Your task to perform on an android device: Open network settings Image 0: 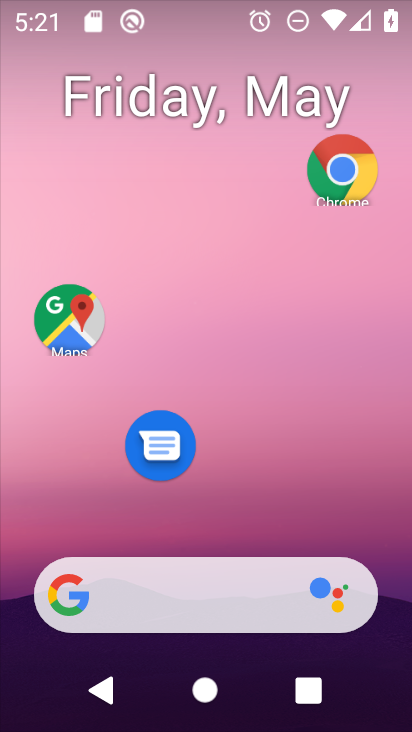
Step 0: drag from (233, 536) to (233, 47)
Your task to perform on an android device: Open network settings Image 1: 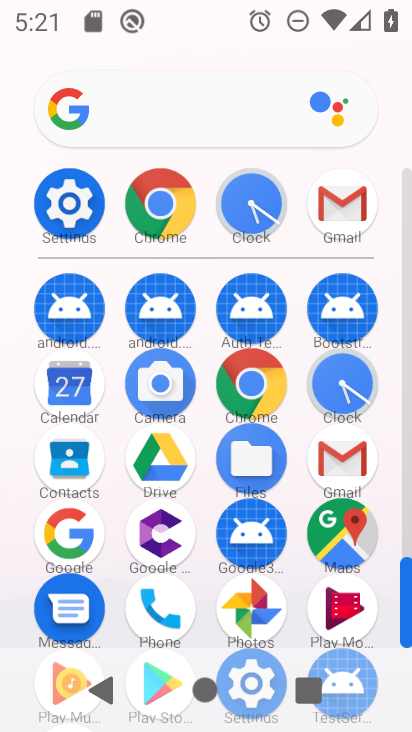
Step 1: click (74, 210)
Your task to perform on an android device: Open network settings Image 2: 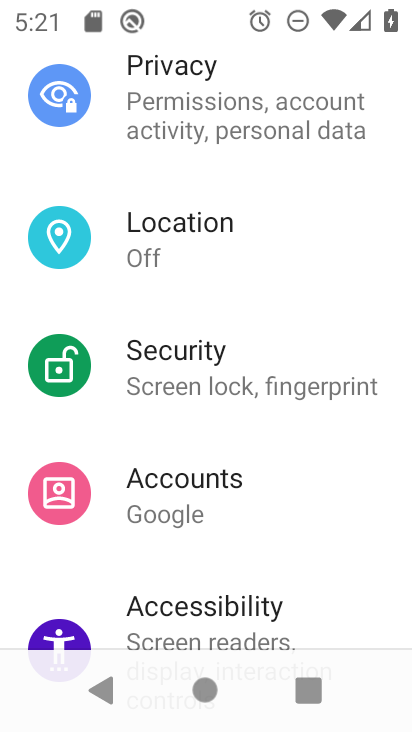
Step 2: drag from (164, 161) to (182, 567)
Your task to perform on an android device: Open network settings Image 3: 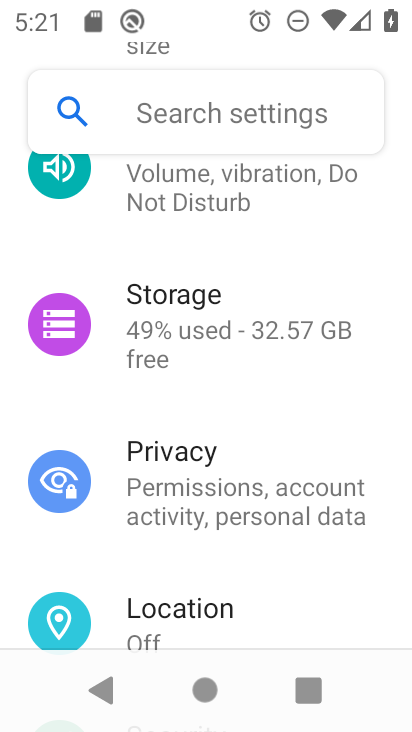
Step 3: drag from (248, 205) to (234, 604)
Your task to perform on an android device: Open network settings Image 4: 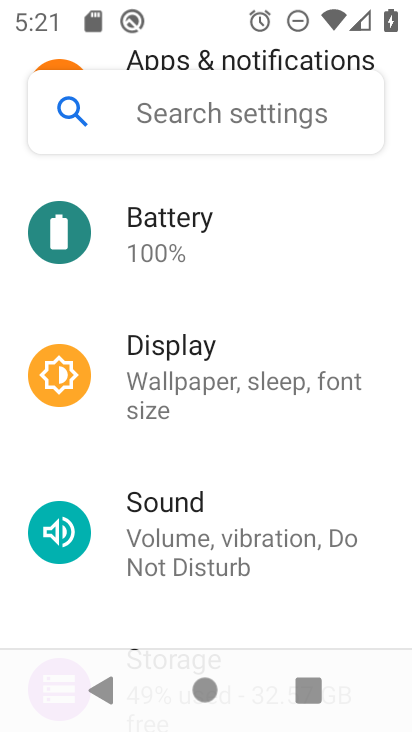
Step 4: drag from (206, 340) to (200, 682)
Your task to perform on an android device: Open network settings Image 5: 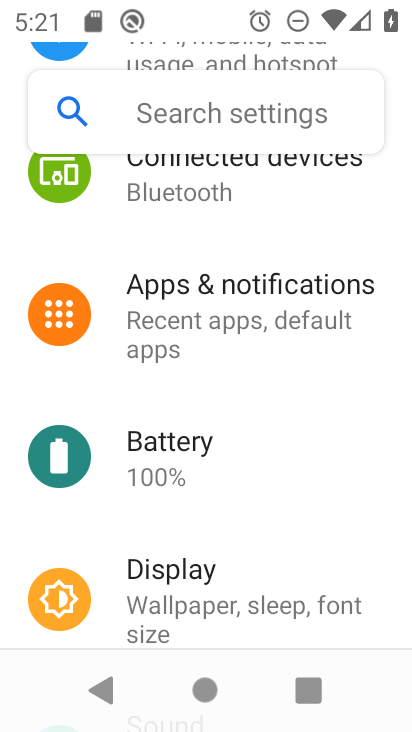
Step 5: drag from (229, 225) to (221, 459)
Your task to perform on an android device: Open network settings Image 6: 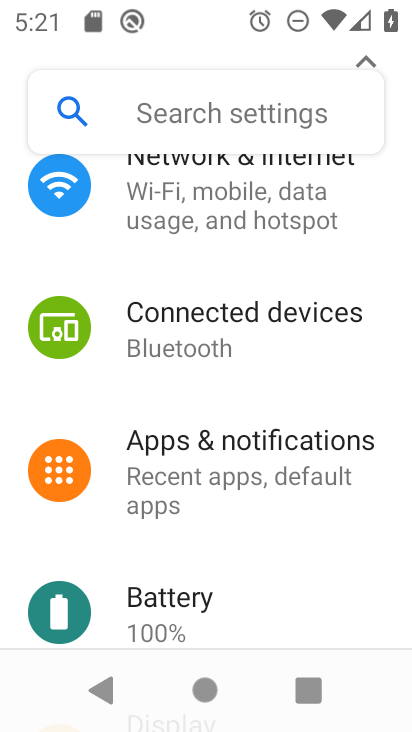
Step 6: click (212, 204)
Your task to perform on an android device: Open network settings Image 7: 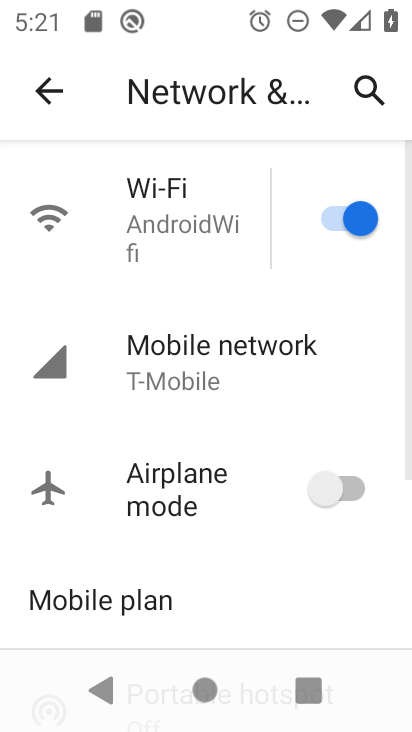
Step 7: task complete